Your task to perform on an android device: Show me popular games on the Play Store Image 0: 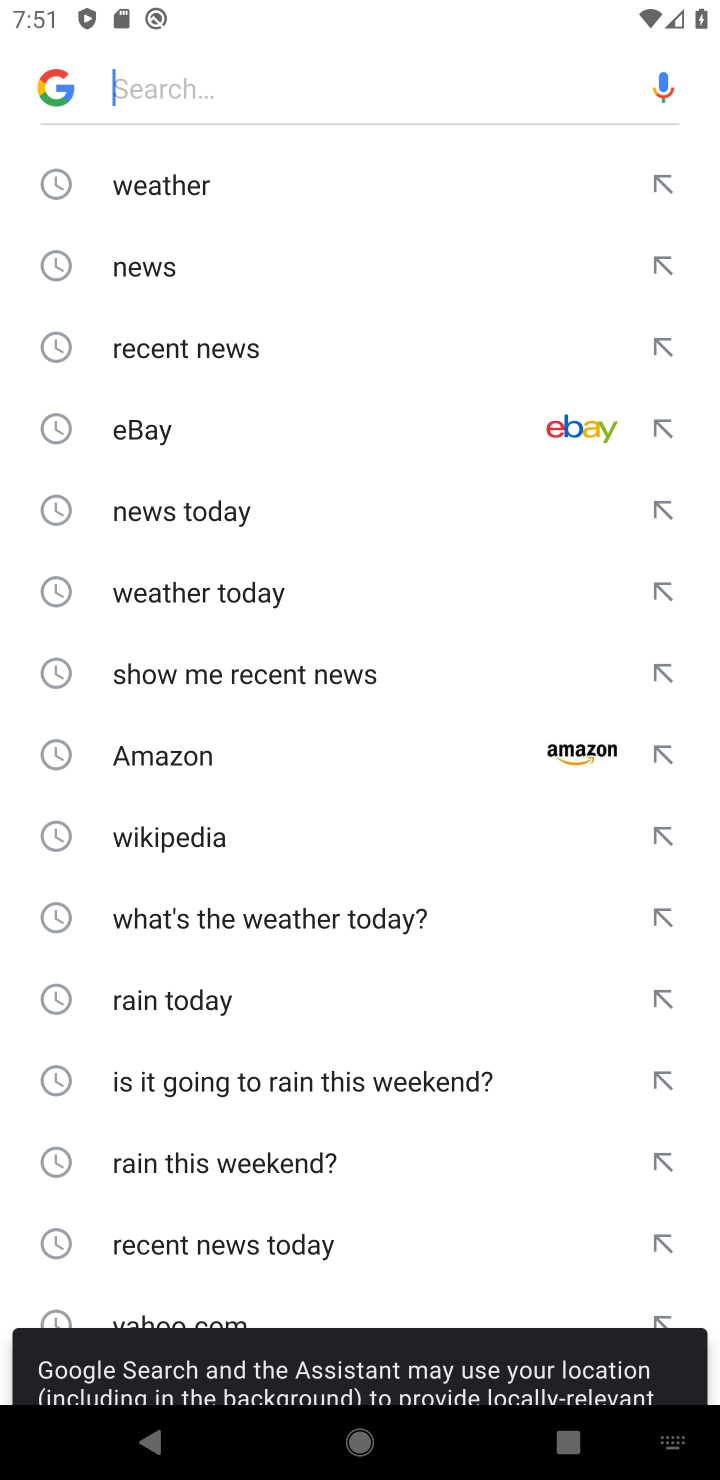
Step 0: press home button
Your task to perform on an android device: Show me popular games on the Play Store Image 1: 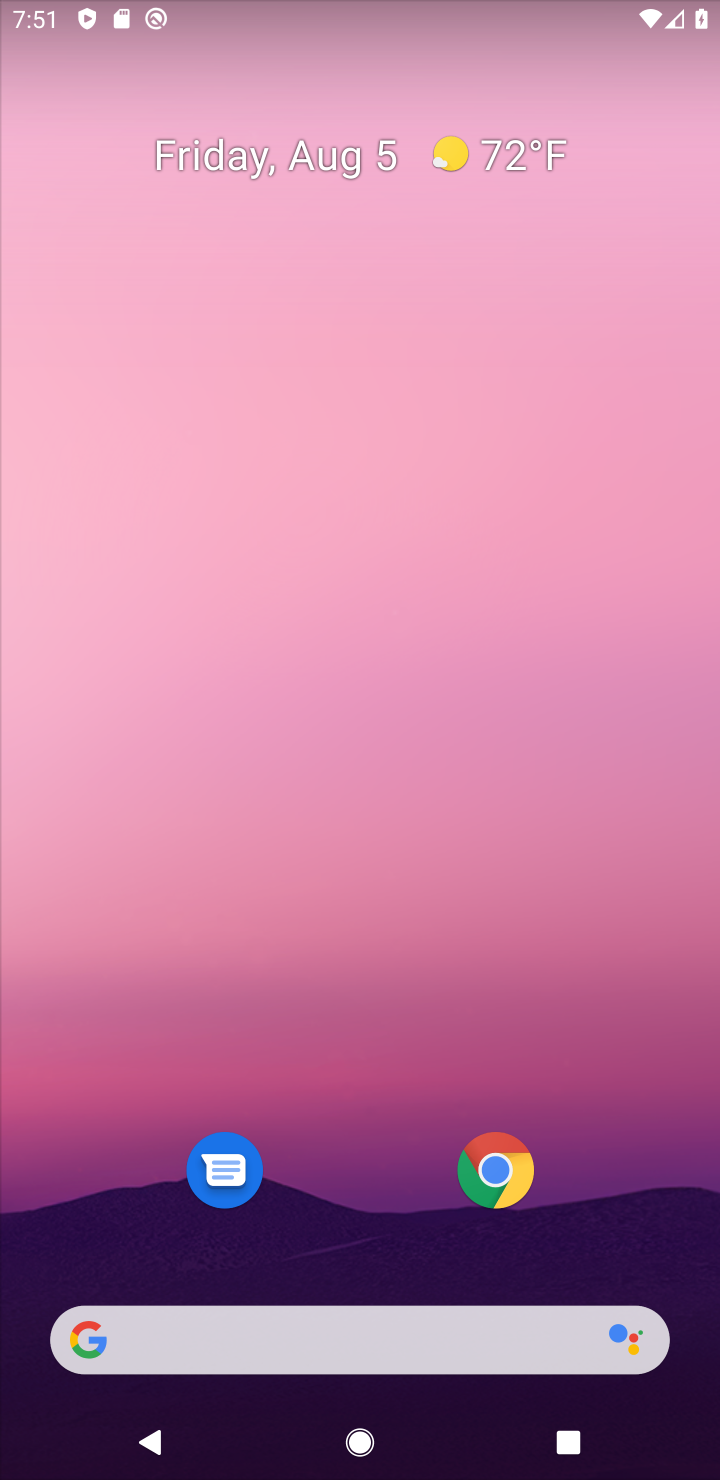
Step 1: drag from (651, 1203) to (569, 65)
Your task to perform on an android device: Show me popular games on the Play Store Image 2: 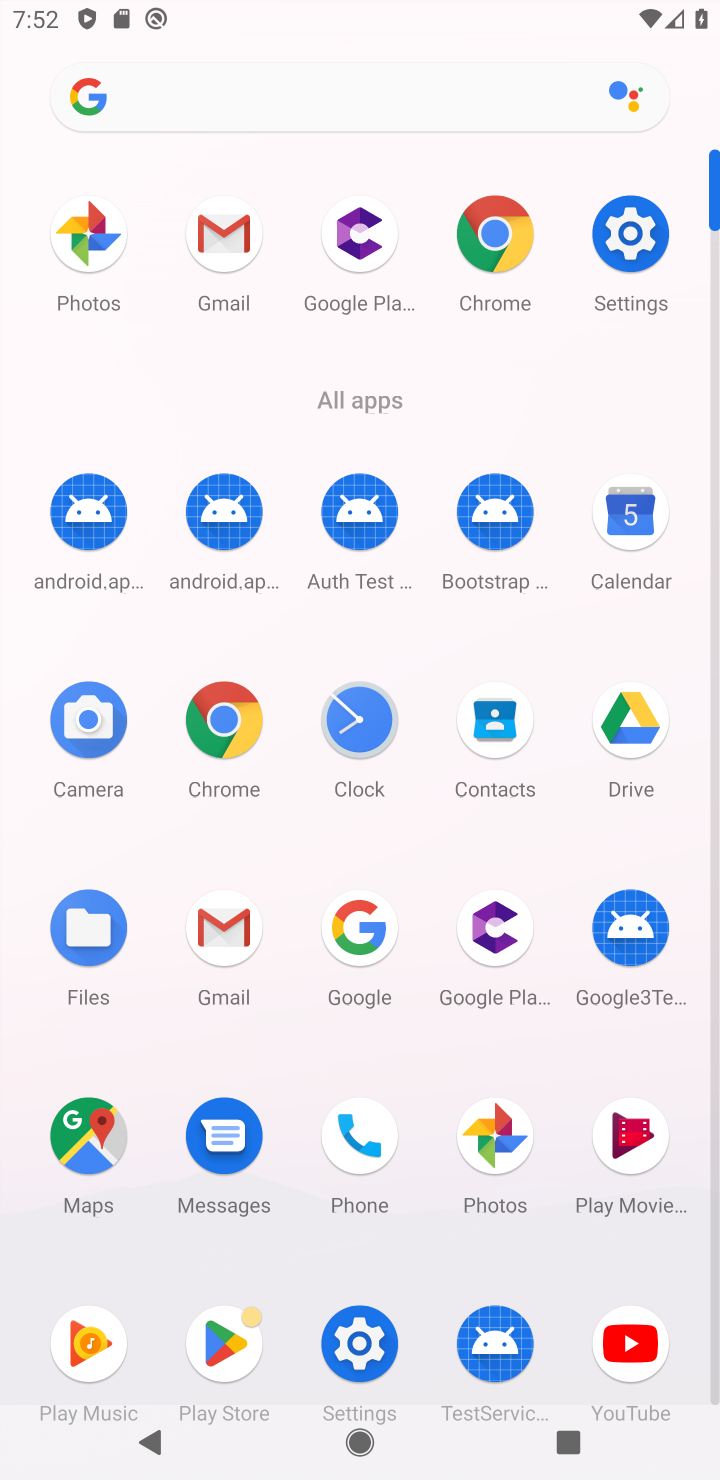
Step 2: click (227, 1338)
Your task to perform on an android device: Show me popular games on the Play Store Image 3: 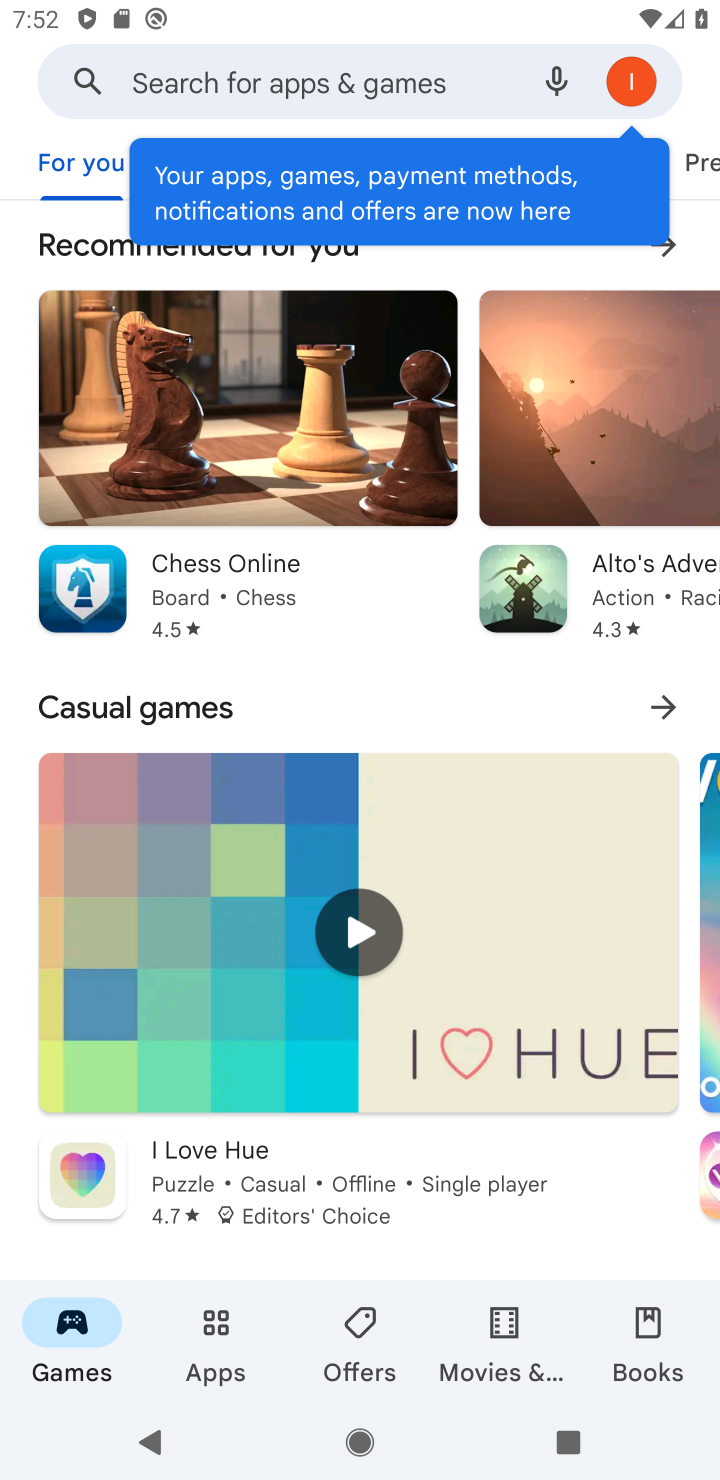
Step 3: drag from (435, 426) to (432, 179)
Your task to perform on an android device: Show me popular games on the Play Store Image 4: 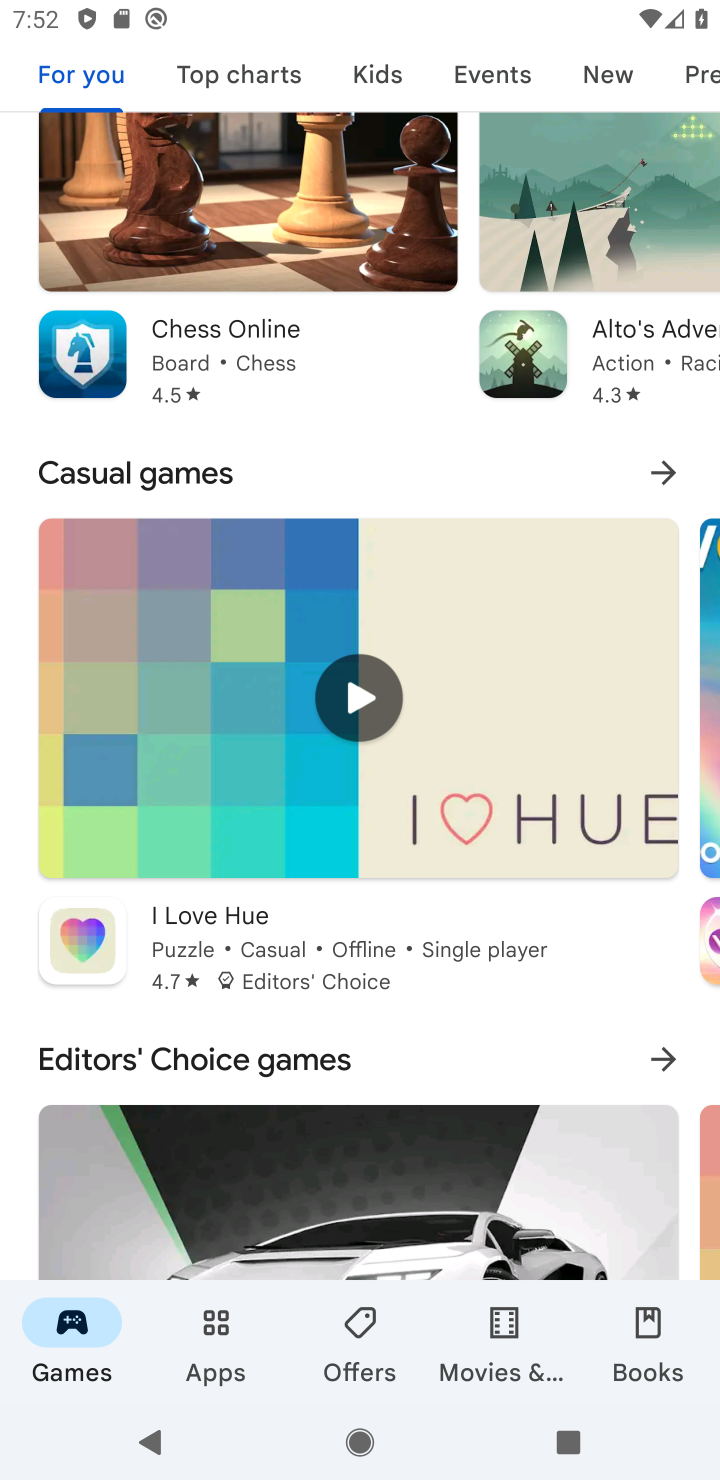
Step 4: drag from (490, 1076) to (470, 284)
Your task to perform on an android device: Show me popular games on the Play Store Image 5: 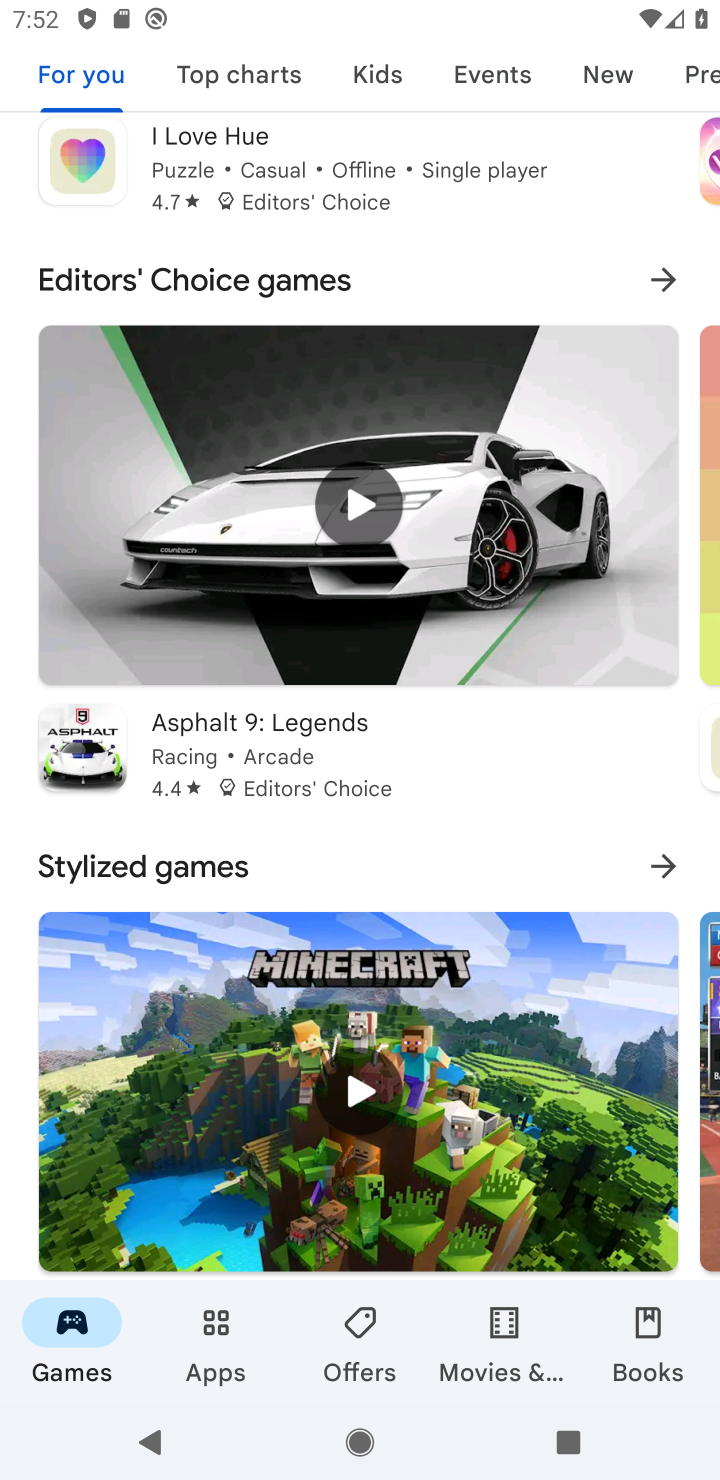
Step 5: drag from (462, 897) to (409, 67)
Your task to perform on an android device: Show me popular games on the Play Store Image 6: 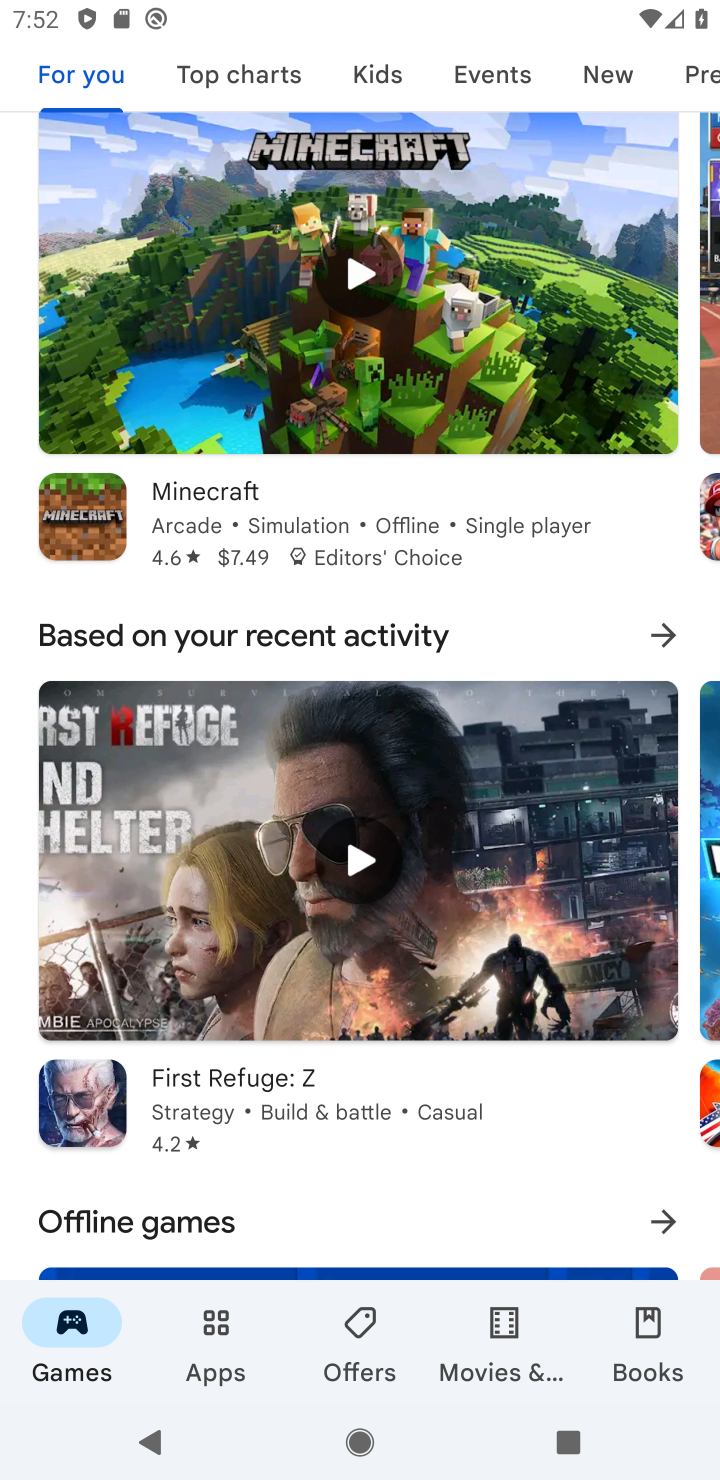
Step 6: drag from (440, 1240) to (433, 405)
Your task to perform on an android device: Show me popular games on the Play Store Image 7: 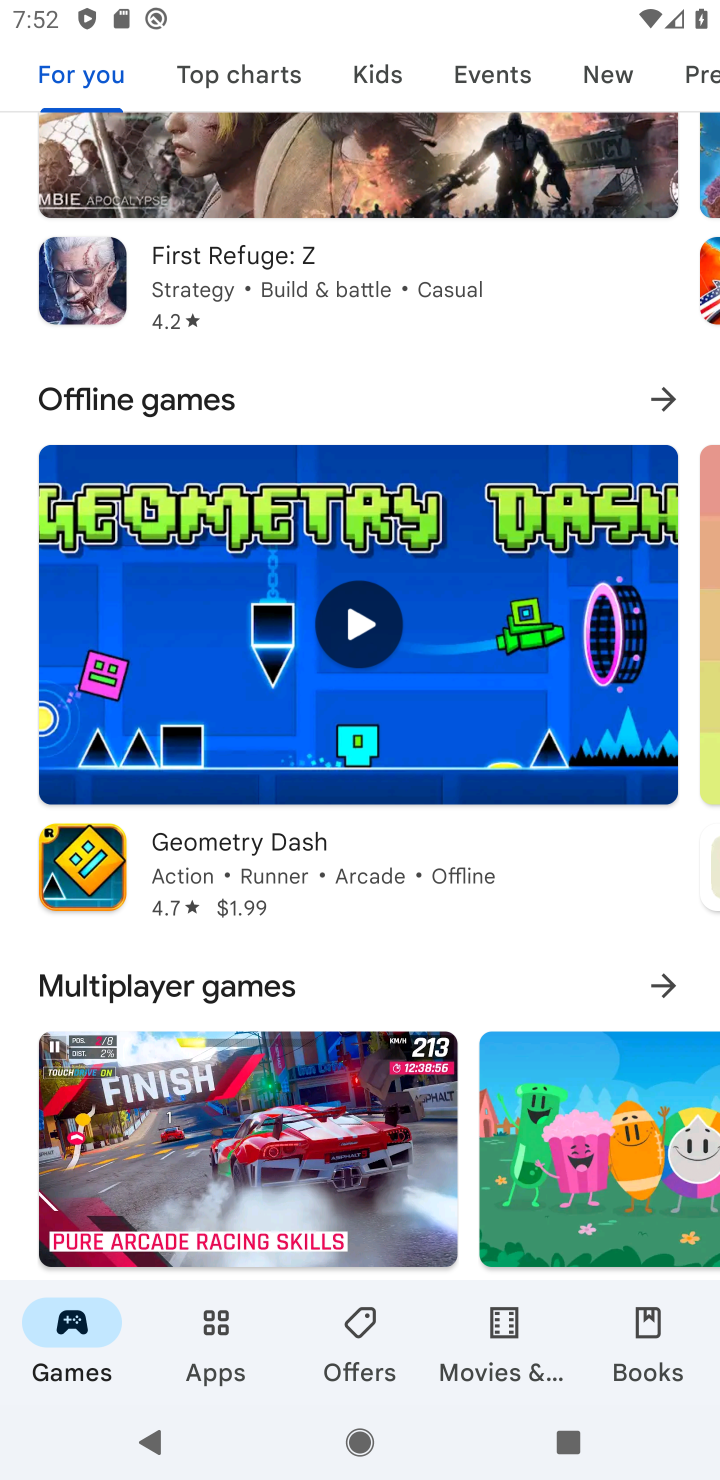
Step 7: drag from (453, 884) to (401, 136)
Your task to perform on an android device: Show me popular games on the Play Store Image 8: 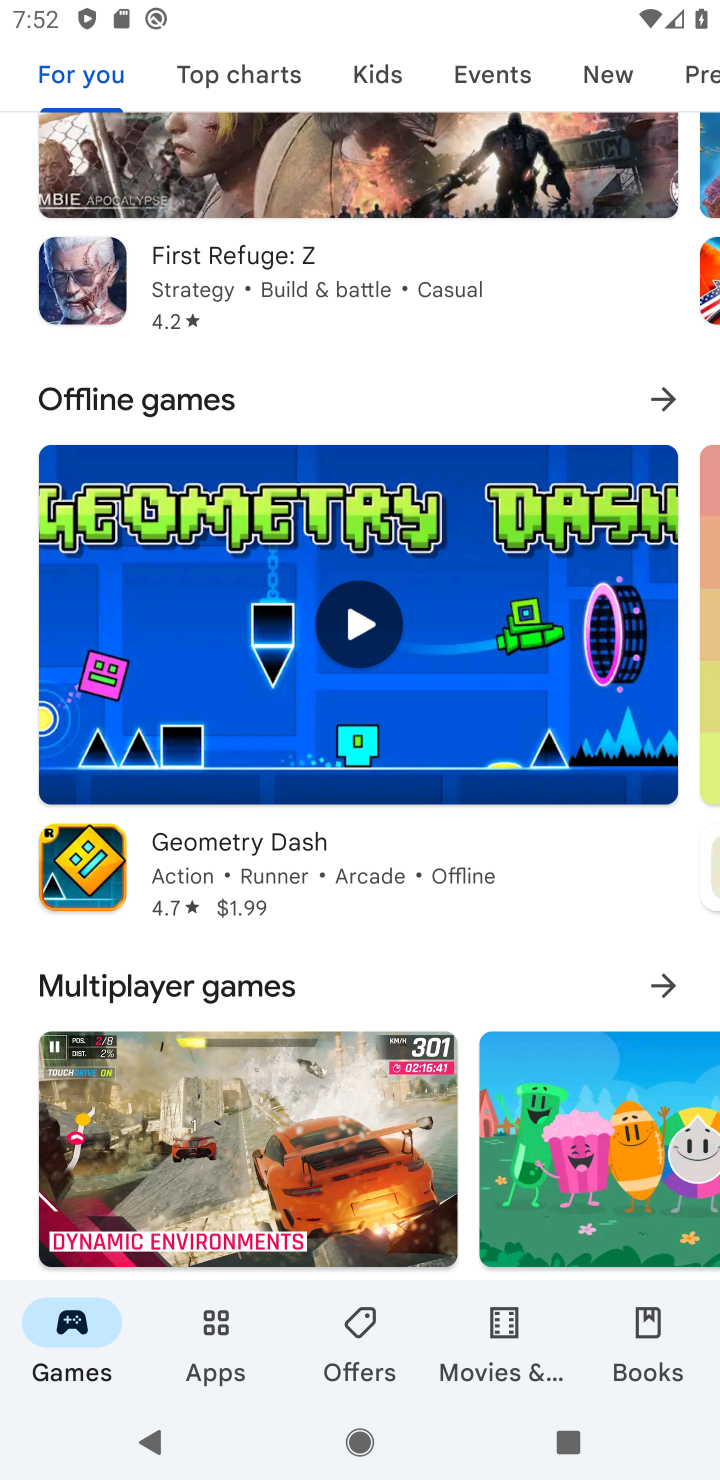
Step 8: drag from (467, 994) to (404, 282)
Your task to perform on an android device: Show me popular games on the Play Store Image 9: 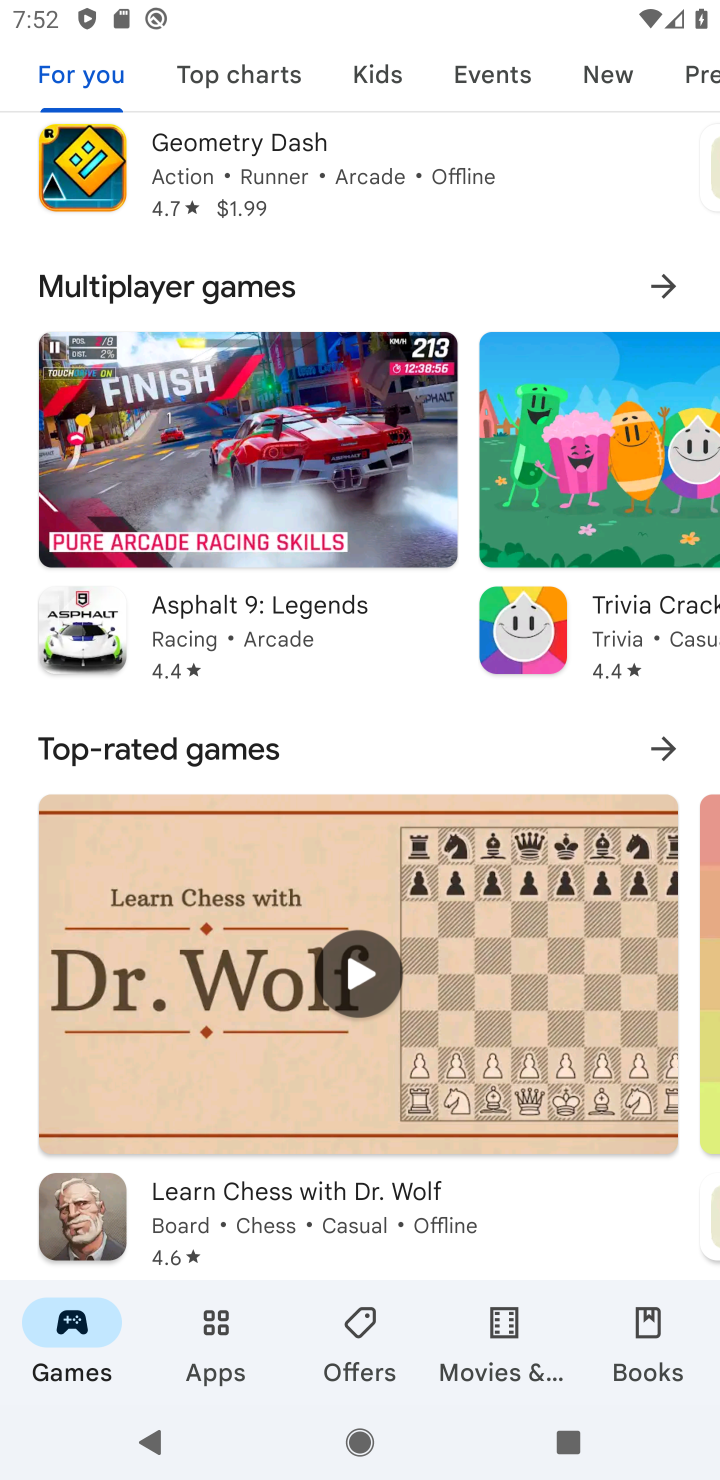
Step 9: drag from (493, 1256) to (472, 404)
Your task to perform on an android device: Show me popular games on the Play Store Image 10: 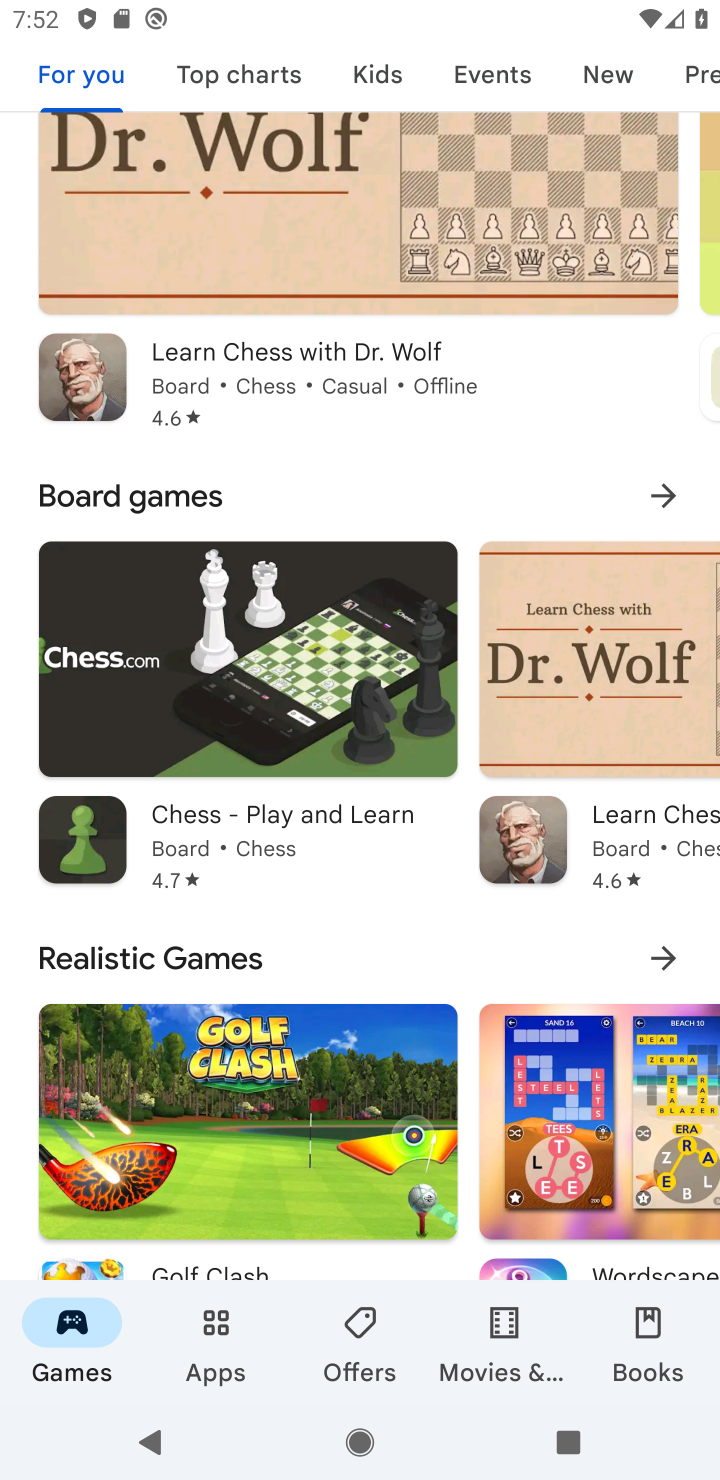
Step 10: drag from (460, 1232) to (446, 275)
Your task to perform on an android device: Show me popular games on the Play Store Image 11: 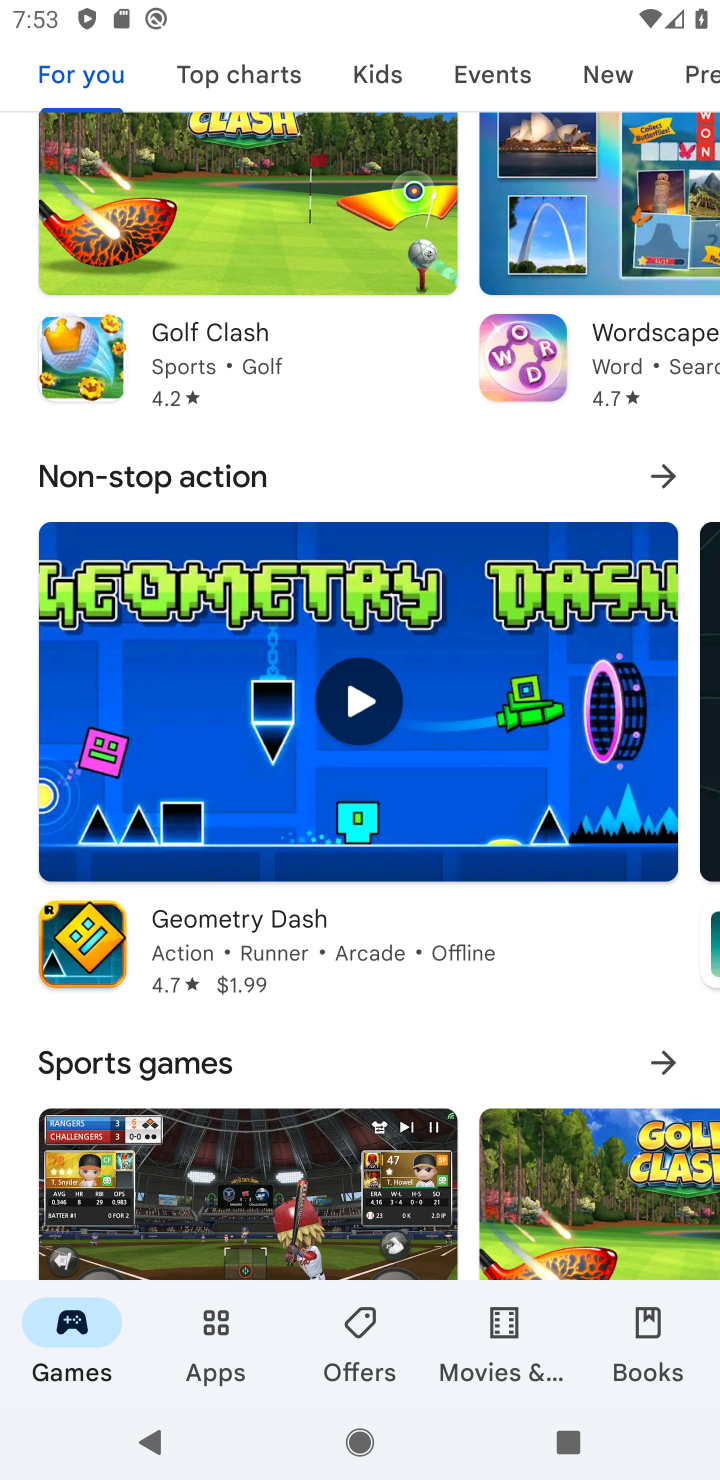
Step 11: drag from (461, 1132) to (416, 175)
Your task to perform on an android device: Show me popular games on the Play Store Image 12: 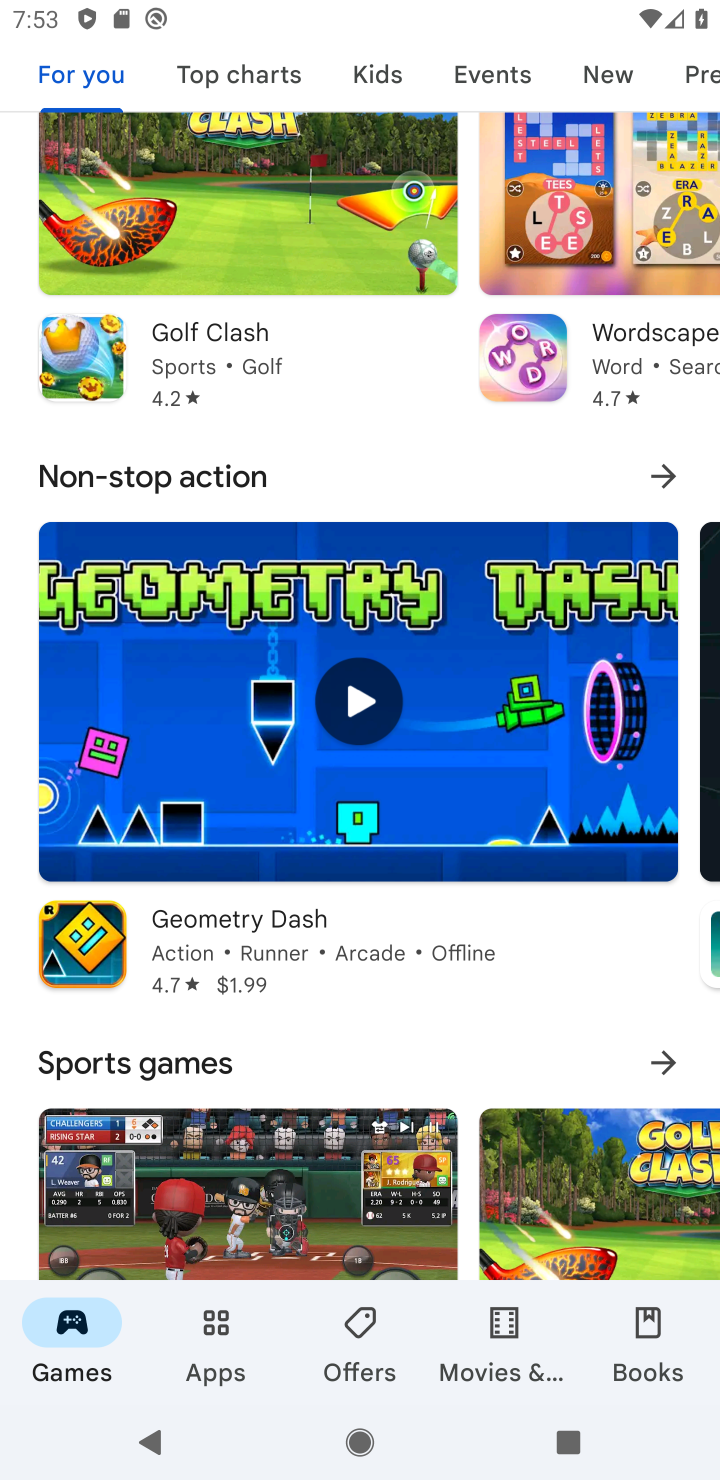
Step 12: drag from (467, 1091) to (456, 259)
Your task to perform on an android device: Show me popular games on the Play Store Image 13: 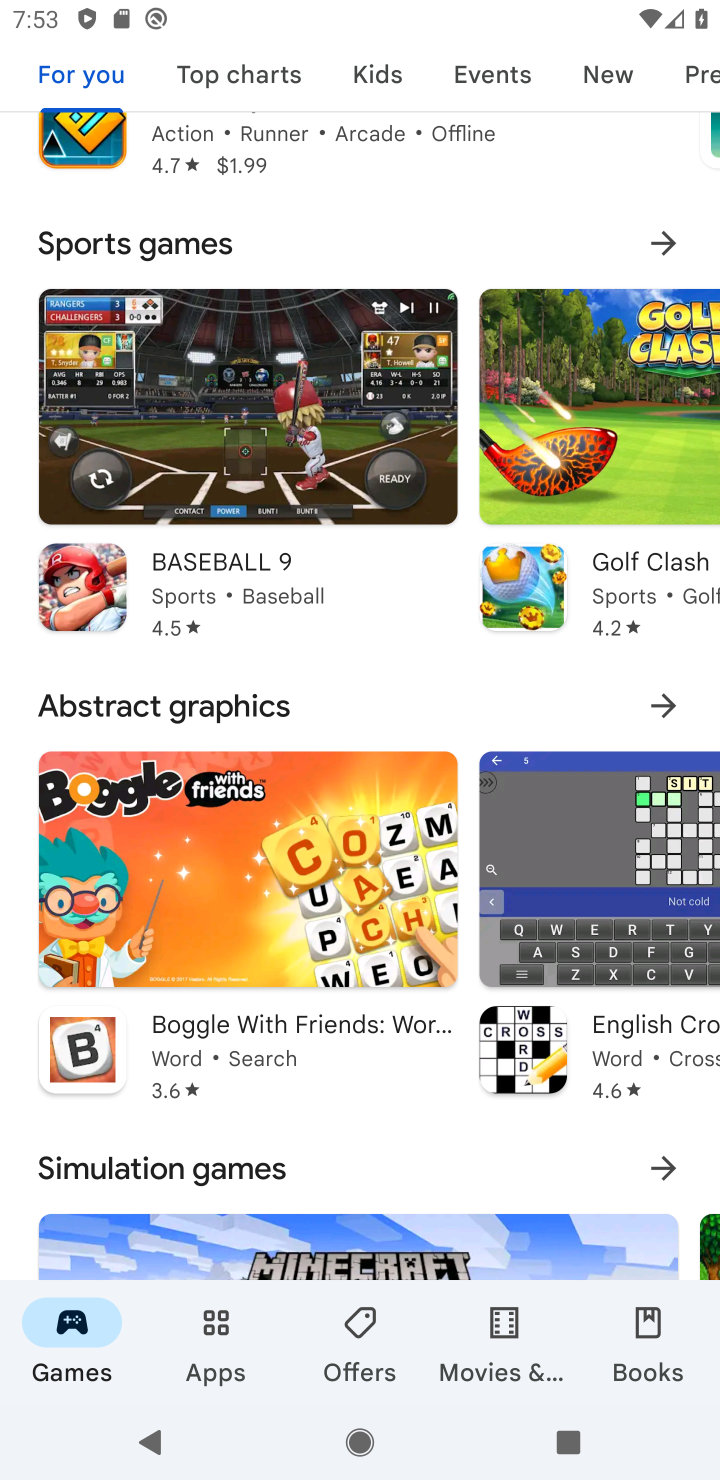
Step 13: drag from (460, 1200) to (451, 271)
Your task to perform on an android device: Show me popular games on the Play Store Image 14: 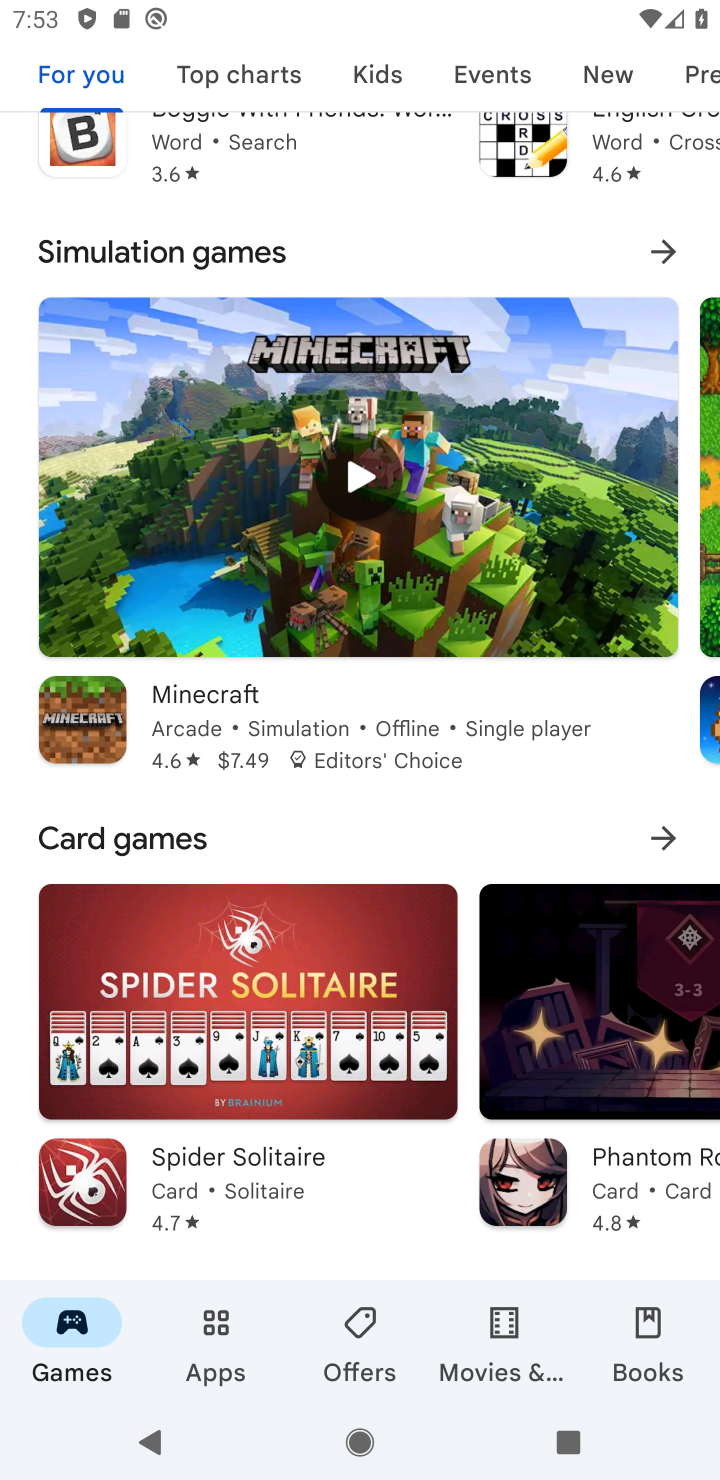
Step 14: drag from (459, 1255) to (435, 232)
Your task to perform on an android device: Show me popular games on the Play Store Image 15: 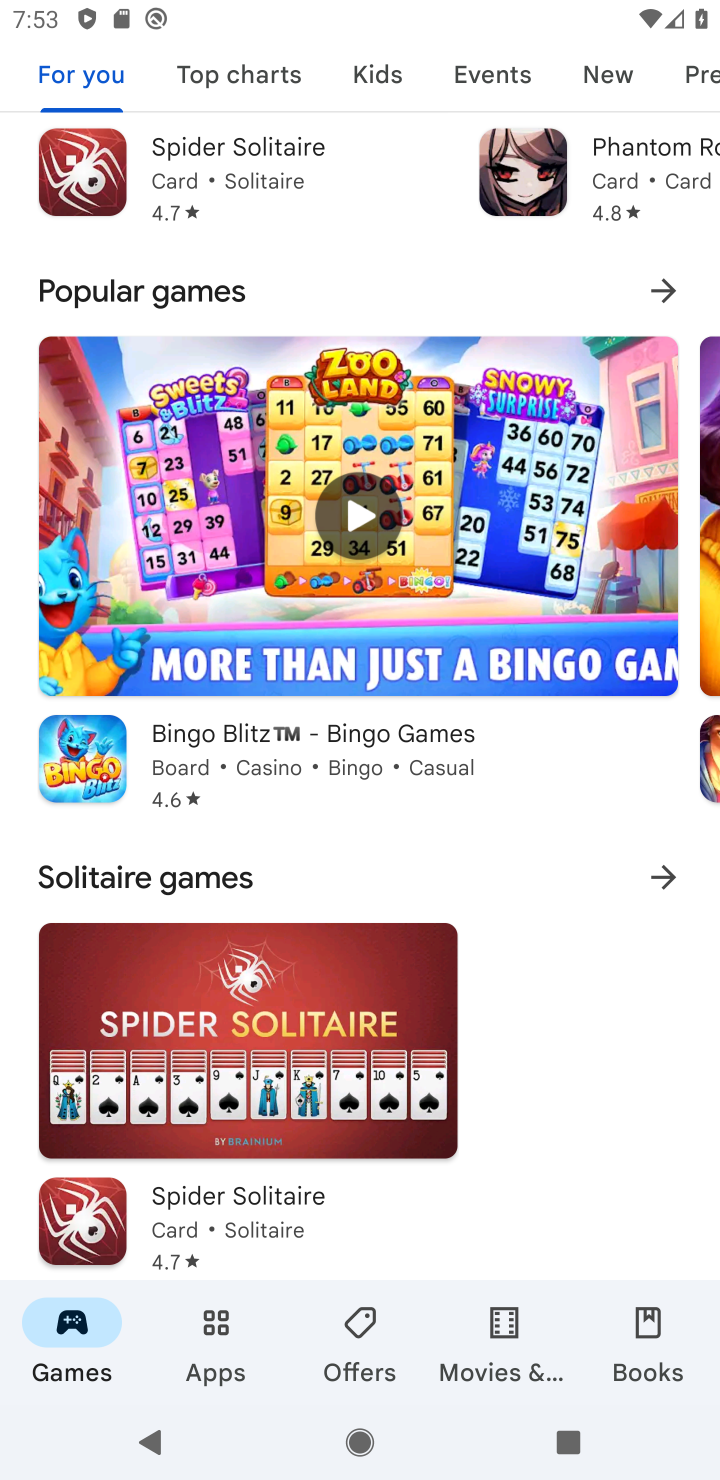
Step 15: click (666, 293)
Your task to perform on an android device: Show me popular games on the Play Store Image 16: 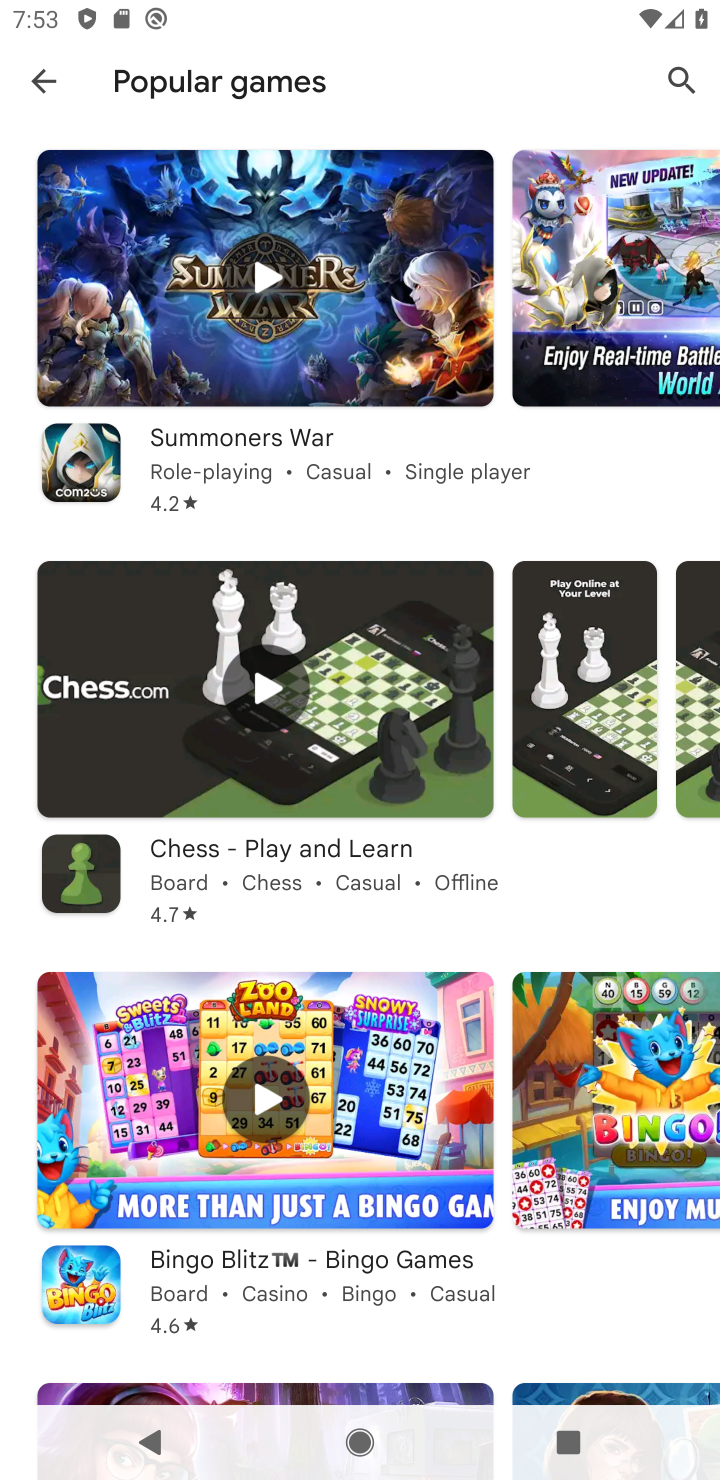
Step 16: task complete